Your task to perform on an android device: Open Chrome and go to settings Image 0: 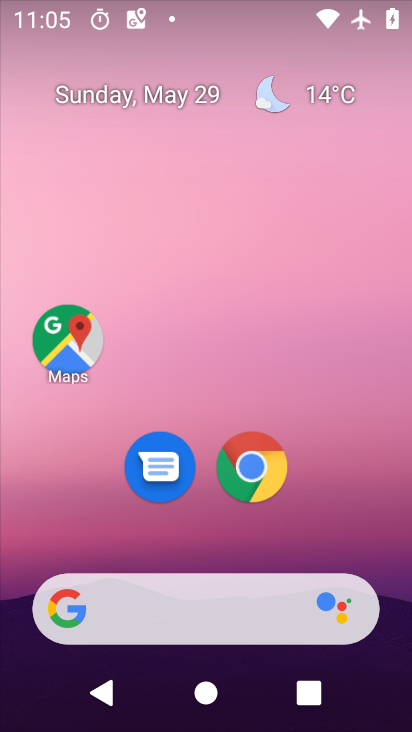
Step 0: click (242, 487)
Your task to perform on an android device: Open Chrome and go to settings Image 1: 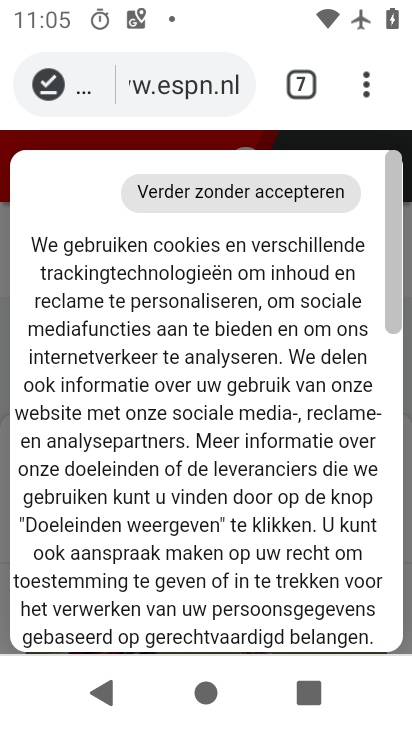
Step 1: click (355, 96)
Your task to perform on an android device: Open Chrome and go to settings Image 2: 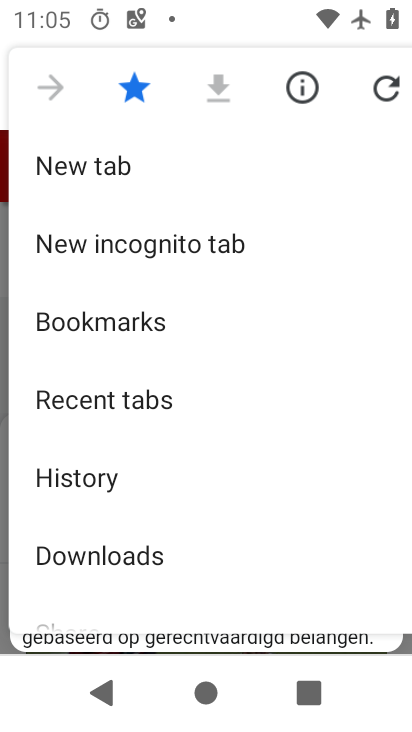
Step 2: drag from (244, 514) to (231, 232)
Your task to perform on an android device: Open Chrome and go to settings Image 3: 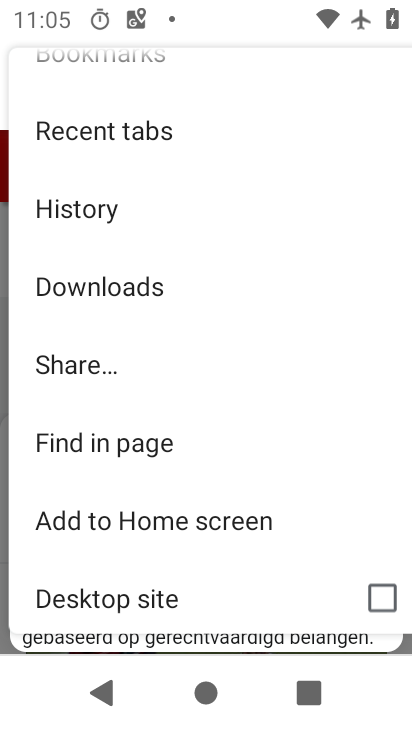
Step 3: drag from (134, 552) to (142, 174)
Your task to perform on an android device: Open Chrome and go to settings Image 4: 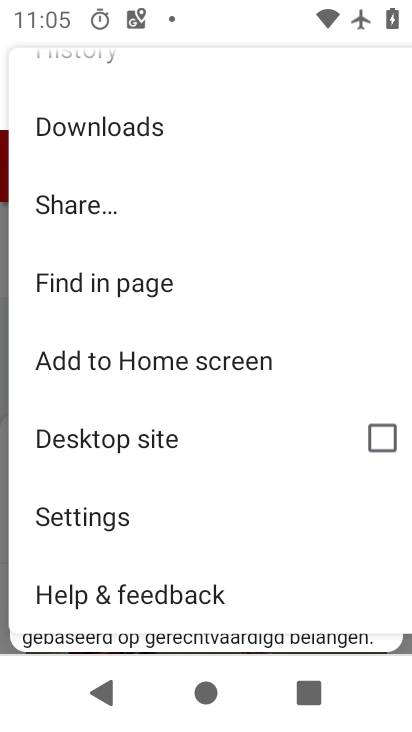
Step 4: click (138, 519)
Your task to perform on an android device: Open Chrome and go to settings Image 5: 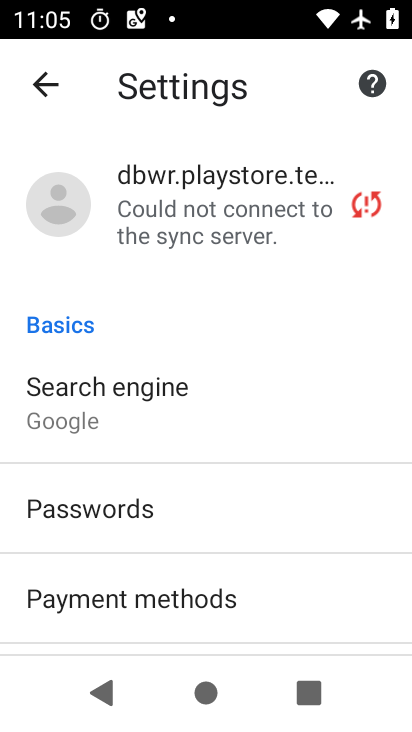
Step 5: task complete